Your task to perform on an android device: Search for sushi restaurants on Maps Image 0: 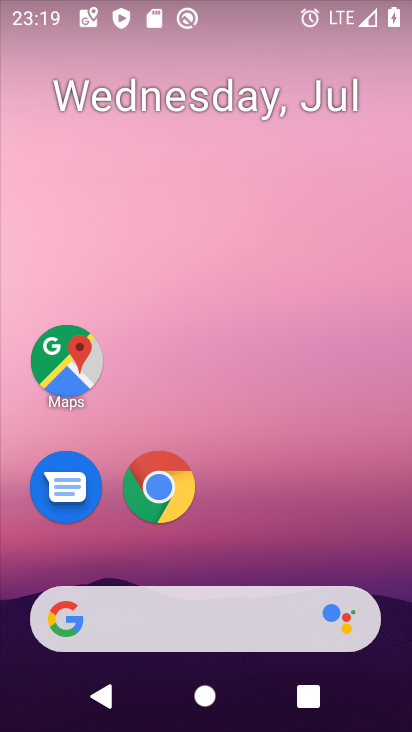
Step 0: click (64, 367)
Your task to perform on an android device: Search for sushi restaurants on Maps Image 1: 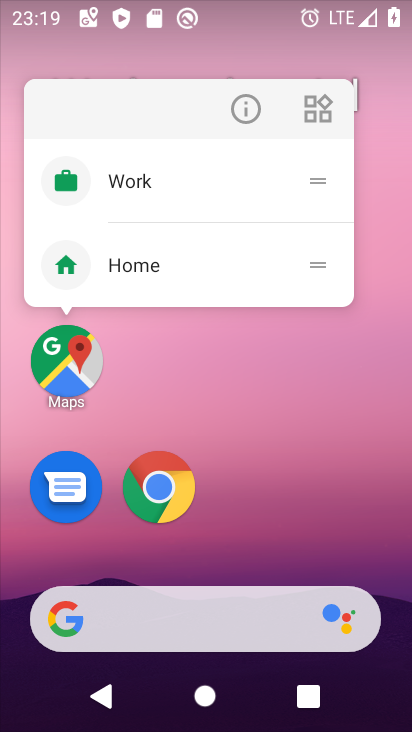
Step 1: click (71, 368)
Your task to perform on an android device: Search for sushi restaurants on Maps Image 2: 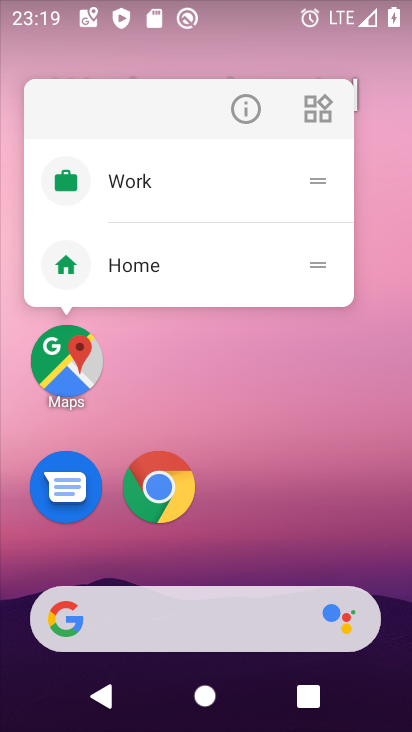
Step 2: click (71, 364)
Your task to perform on an android device: Search for sushi restaurants on Maps Image 3: 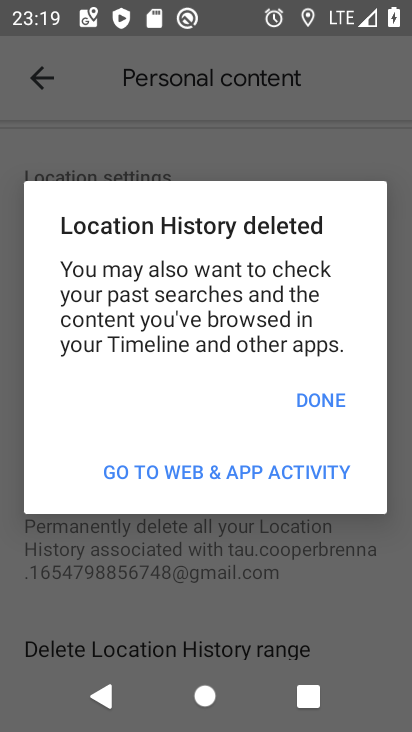
Step 3: click (309, 390)
Your task to perform on an android device: Search for sushi restaurants on Maps Image 4: 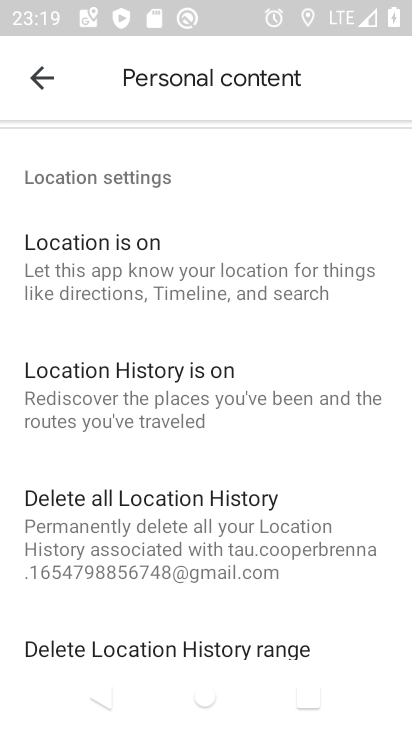
Step 4: click (53, 71)
Your task to perform on an android device: Search for sushi restaurants on Maps Image 5: 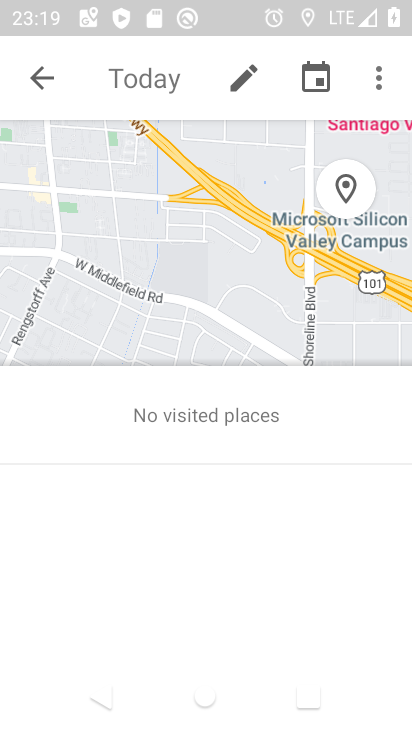
Step 5: click (10, 63)
Your task to perform on an android device: Search for sushi restaurants on Maps Image 6: 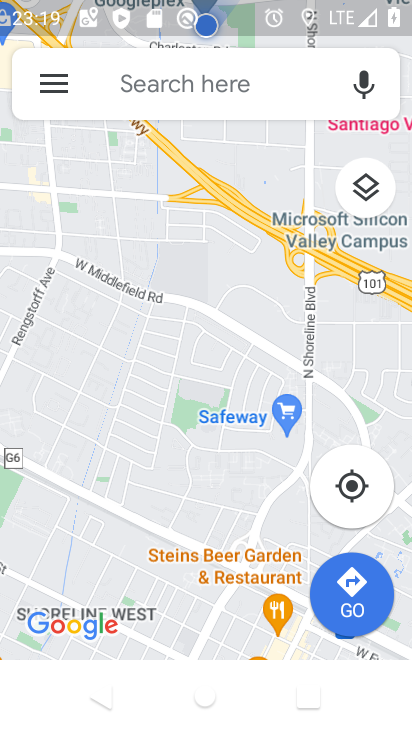
Step 6: click (137, 89)
Your task to perform on an android device: Search for sushi restaurants on Maps Image 7: 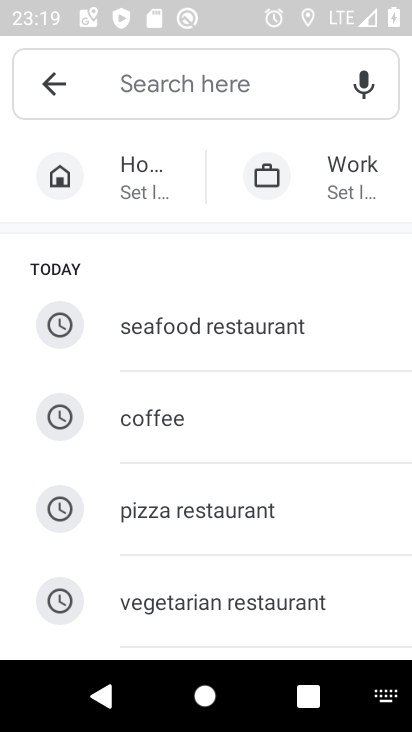
Step 7: drag from (221, 617) to (289, 191)
Your task to perform on an android device: Search for sushi restaurants on Maps Image 8: 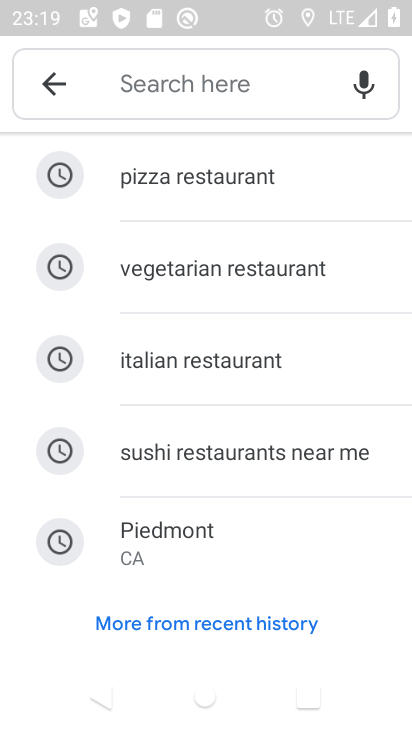
Step 8: click (199, 453)
Your task to perform on an android device: Search for sushi restaurants on Maps Image 9: 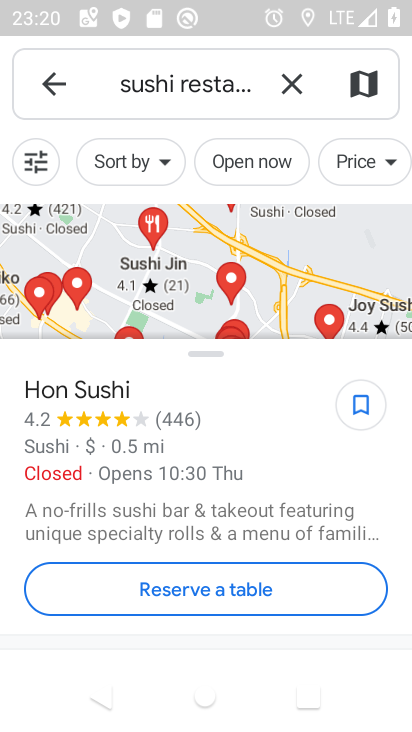
Step 9: task complete